Your task to perform on an android device: change notification settings in the gmail app Image 0: 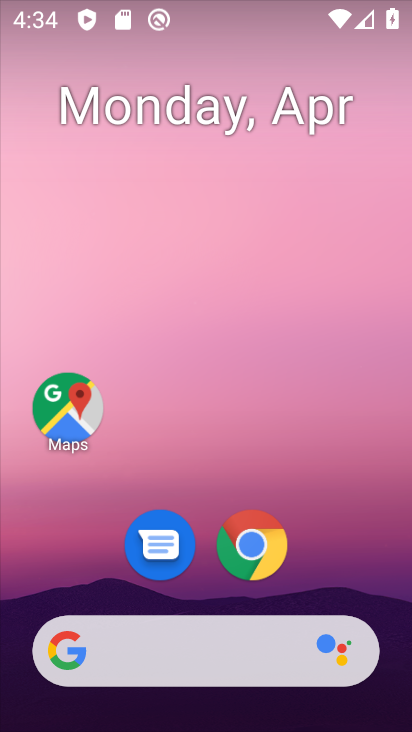
Step 0: drag from (386, 546) to (358, 6)
Your task to perform on an android device: change notification settings in the gmail app Image 1: 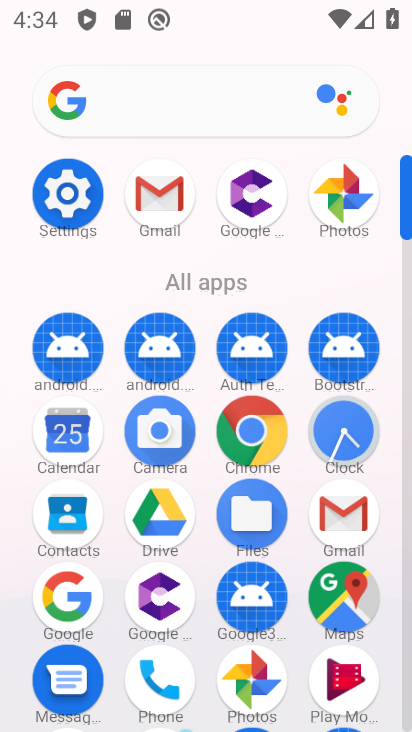
Step 1: click (152, 211)
Your task to perform on an android device: change notification settings in the gmail app Image 2: 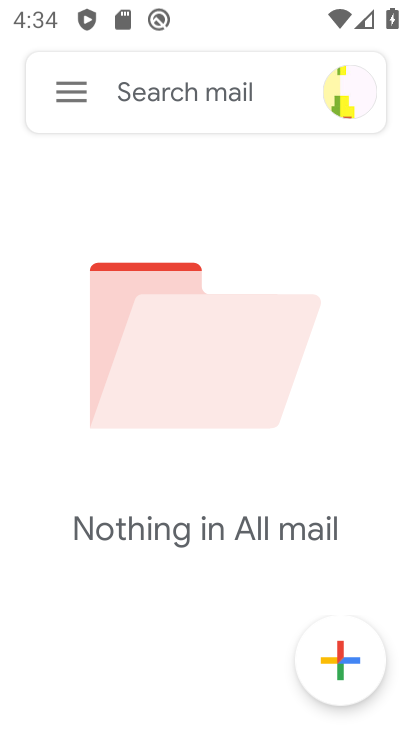
Step 2: click (75, 105)
Your task to perform on an android device: change notification settings in the gmail app Image 3: 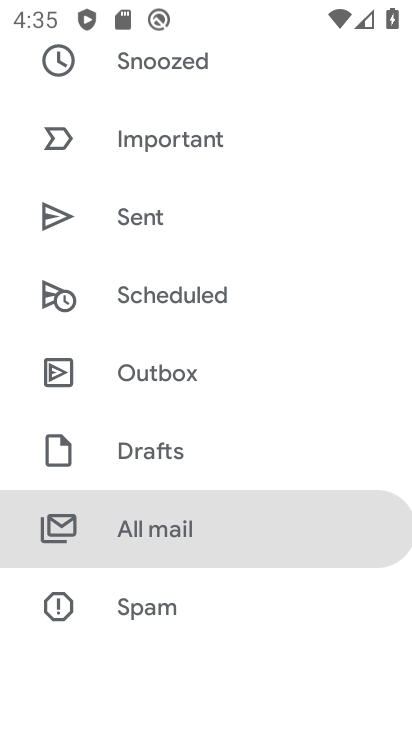
Step 3: drag from (272, 556) to (268, 211)
Your task to perform on an android device: change notification settings in the gmail app Image 4: 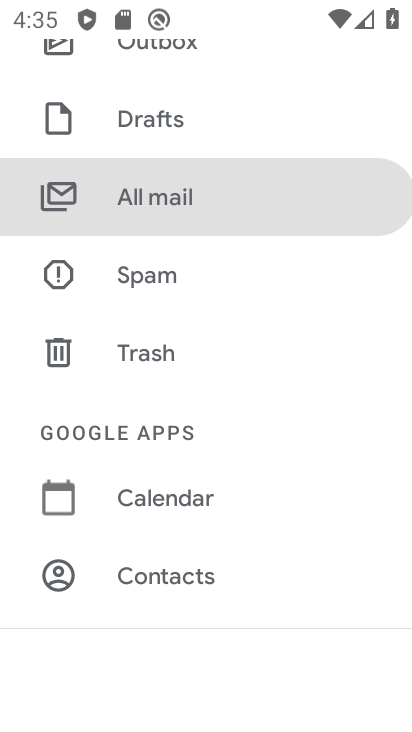
Step 4: drag from (182, 607) to (191, 183)
Your task to perform on an android device: change notification settings in the gmail app Image 5: 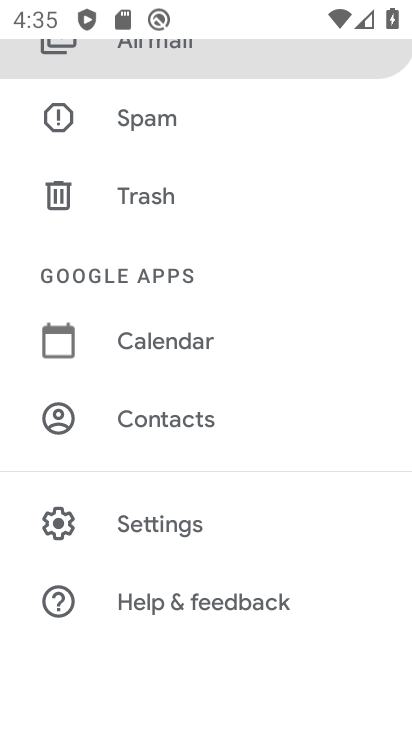
Step 5: click (170, 508)
Your task to perform on an android device: change notification settings in the gmail app Image 6: 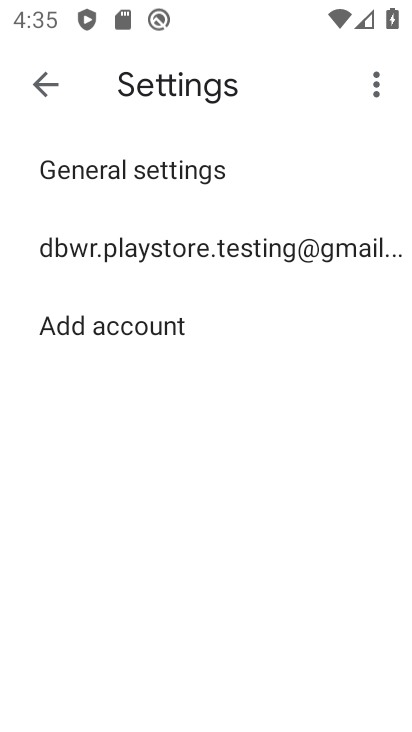
Step 6: click (93, 179)
Your task to perform on an android device: change notification settings in the gmail app Image 7: 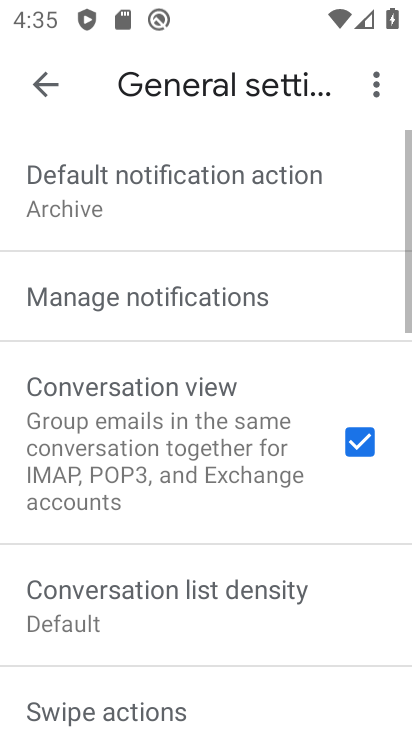
Step 7: click (163, 292)
Your task to perform on an android device: change notification settings in the gmail app Image 8: 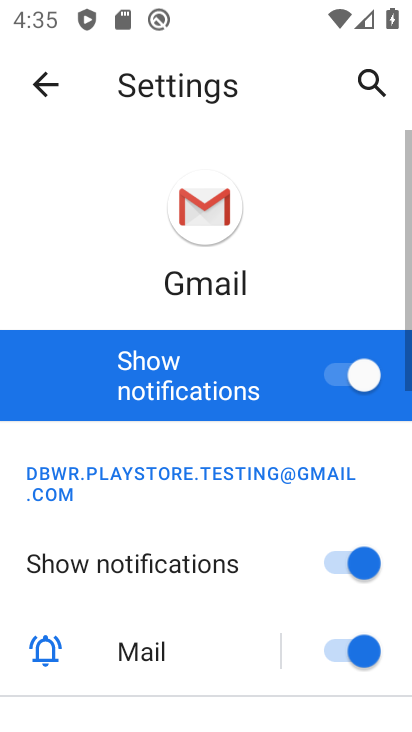
Step 8: click (373, 375)
Your task to perform on an android device: change notification settings in the gmail app Image 9: 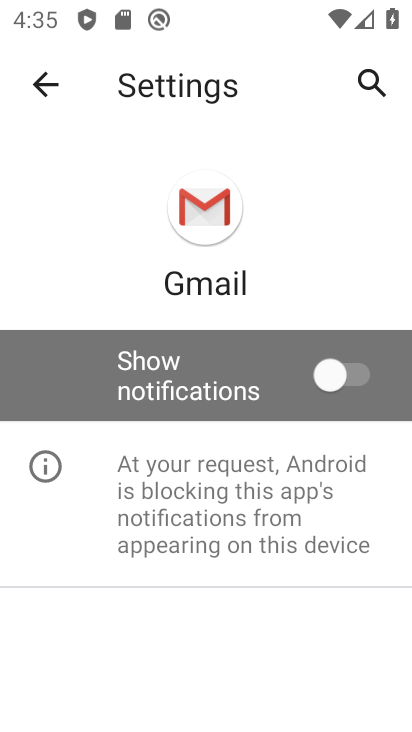
Step 9: task complete